Your task to perform on an android device: change alarm snooze length Image 0: 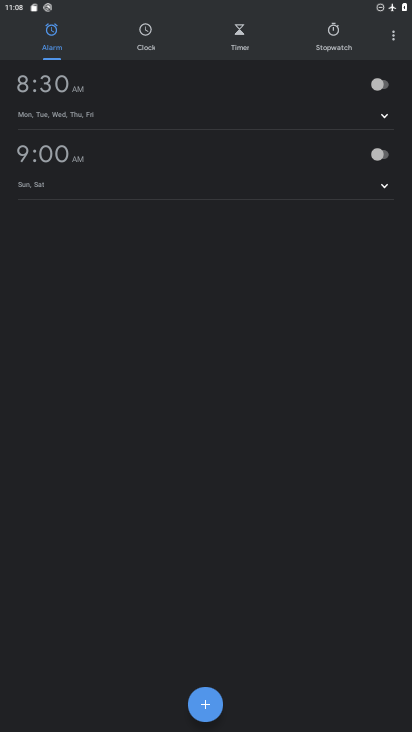
Step 0: click (394, 35)
Your task to perform on an android device: change alarm snooze length Image 1: 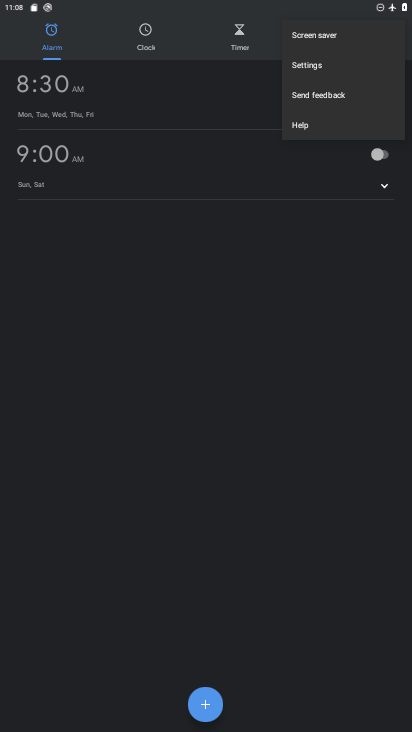
Step 1: click (311, 55)
Your task to perform on an android device: change alarm snooze length Image 2: 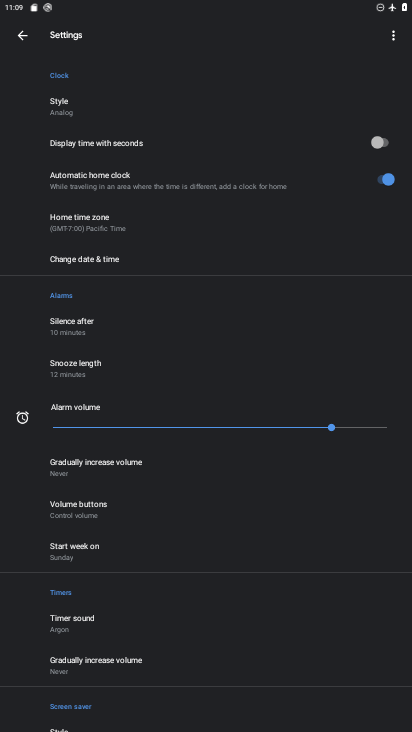
Step 2: click (85, 373)
Your task to perform on an android device: change alarm snooze length Image 3: 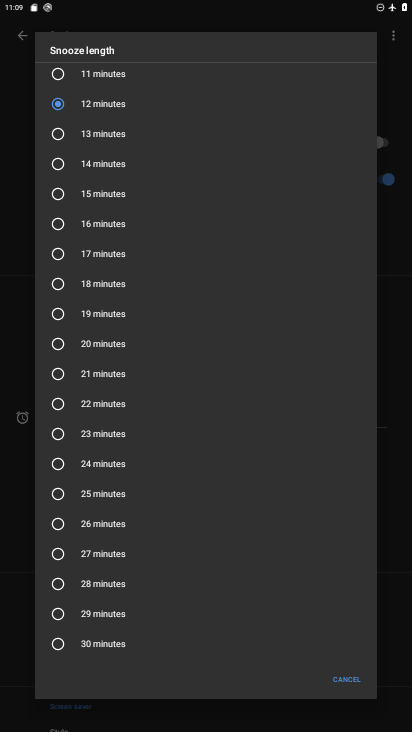
Step 3: click (99, 80)
Your task to perform on an android device: change alarm snooze length Image 4: 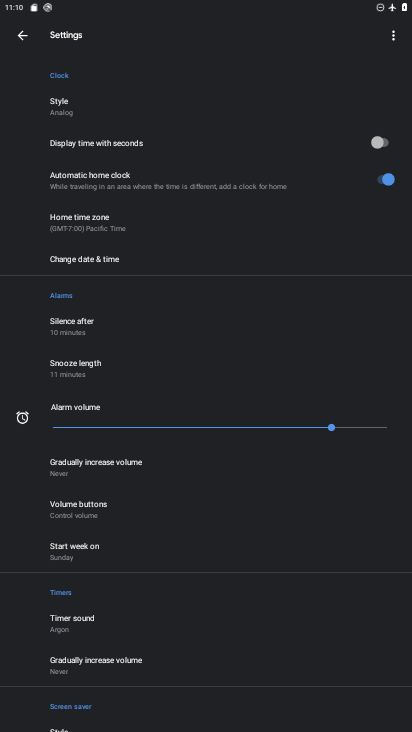
Step 4: task complete